Your task to perform on an android device: turn off smart reply in the gmail app Image 0: 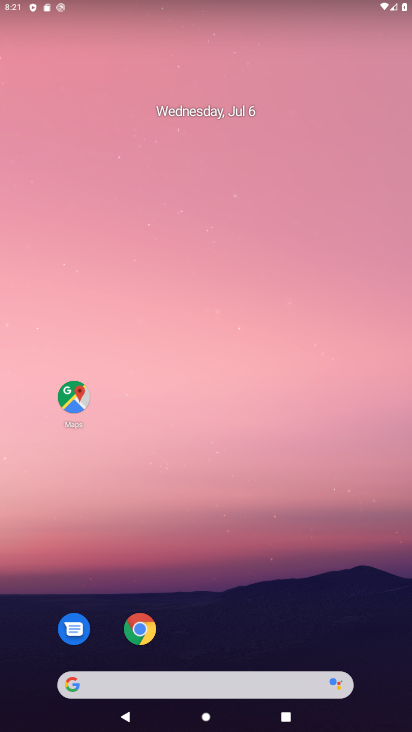
Step 0: drag from (231, 656) to (188, 71)
Your task to perform on an android device: turn off smart reply in the gmail app Image 1: 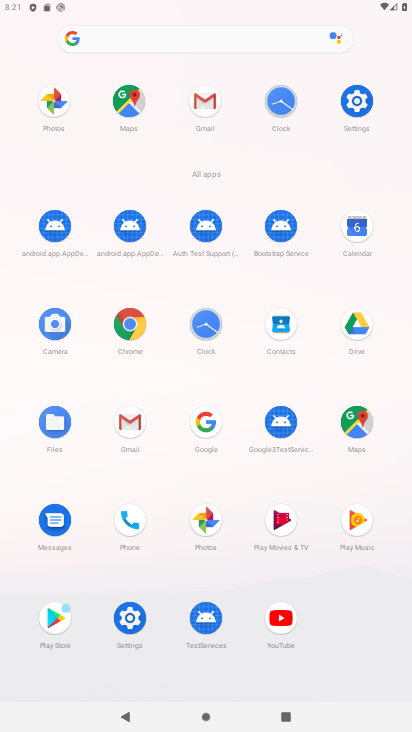
Step 1: click (141, 417)
Your task to perform on an android device: turn off smart reply in the gmail app Image 2: 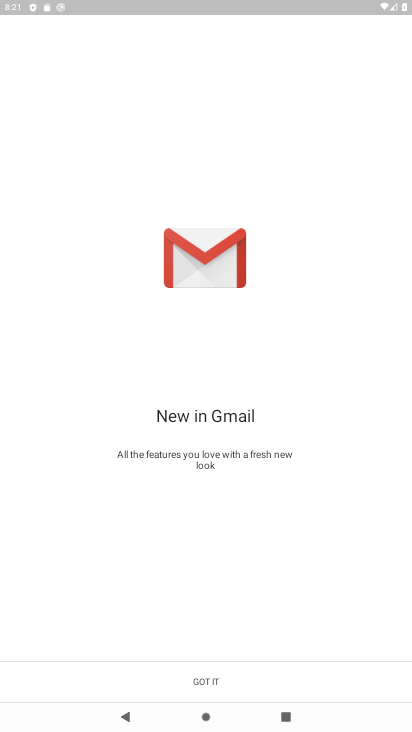
Step 2: click (198, 680)
Your task to perform on an android device: turn off smart reply in the gmail app Image 3: 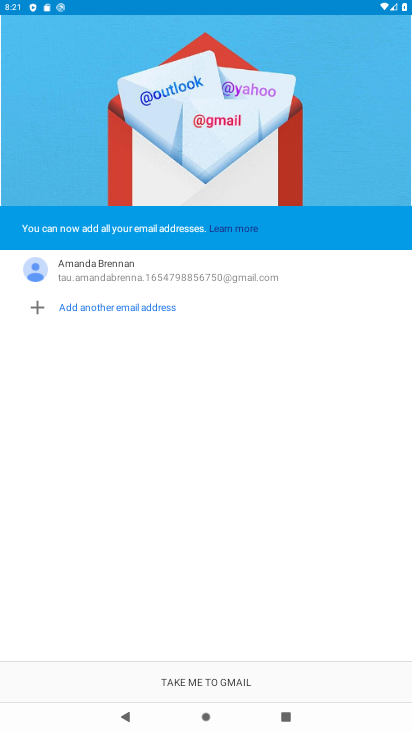
Step 3: click (196, 666)
Your task to perform on an android device: turn off smart reply in the gmail app Image 4: 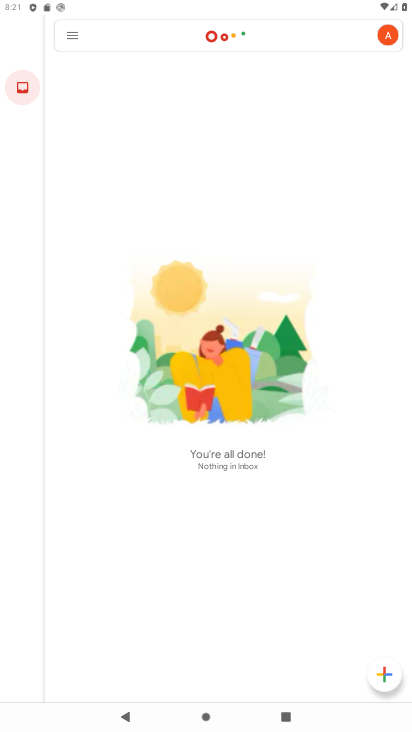
Step 4: click (58, 28)
Your task to perform on an android device: turn off smart reply in the gmail app Image 5: 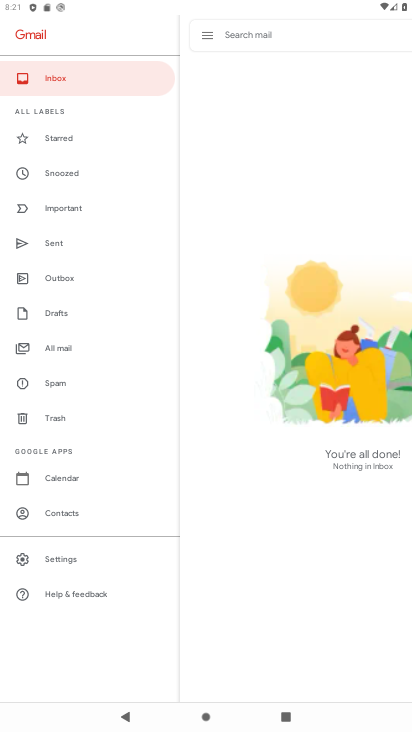
Step 5: click (60, 556)
Your task to perform on an android device: turn off smart reply in the gmail app Image 6: 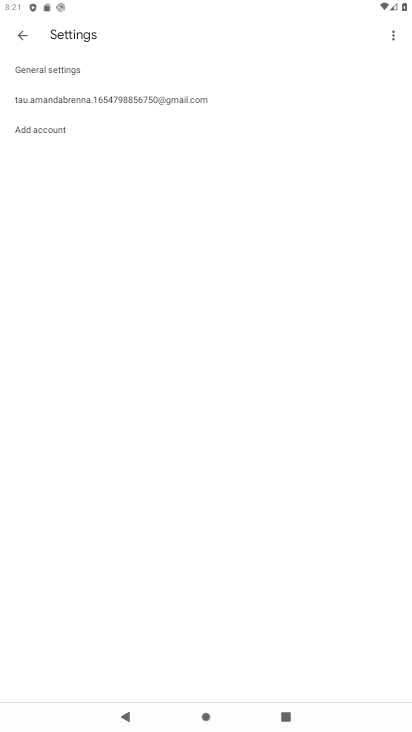
Step 6: click (45, 95)
Your task to perform on an android device: turn off smart reply in the gmail app Image 7: 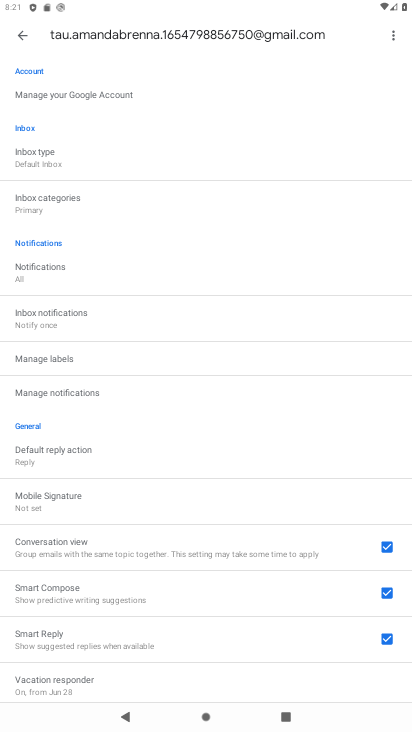
Step 7: click (249, 641)
Your task to perform on an android device: turn off smart reply in the gmail app Image 8: 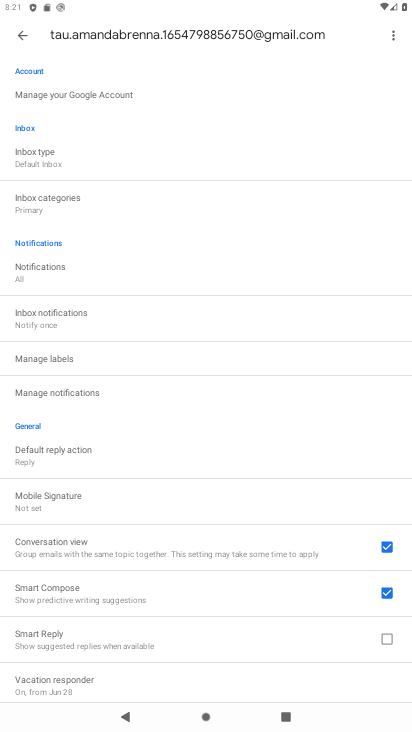
Step 8: task complete